Your task to perform on an android device: move a message to another label in the gmail app Image 0: 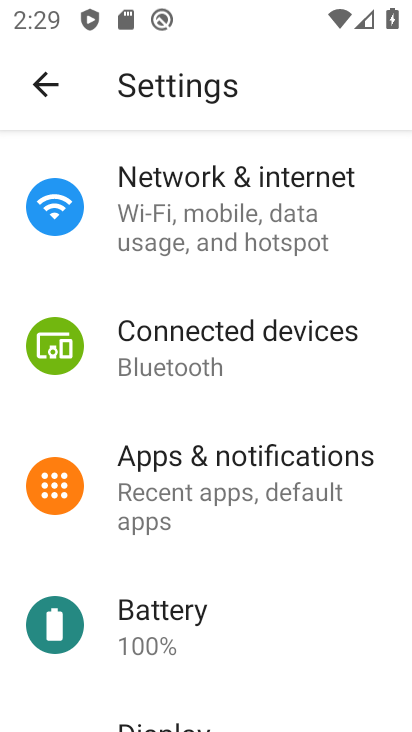
Step 0: press back button
Your task to perform on an android device: move a message to another label in the gmail app Image 1: 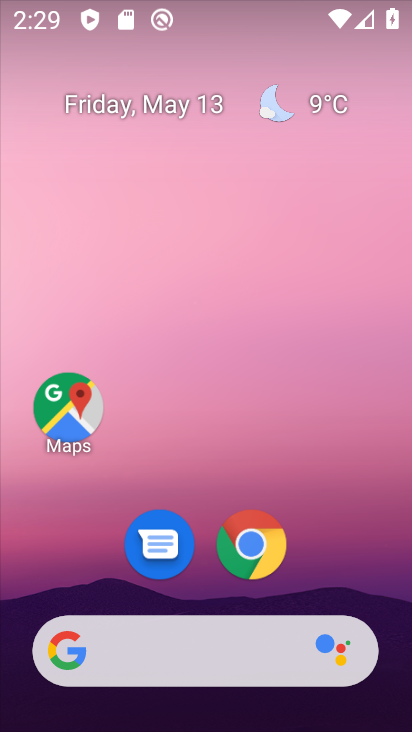
Step 1: drag from (182, 594) to (350, 117)
Your task to perform on an android device: move a message to another label in the gmail app Image 2: 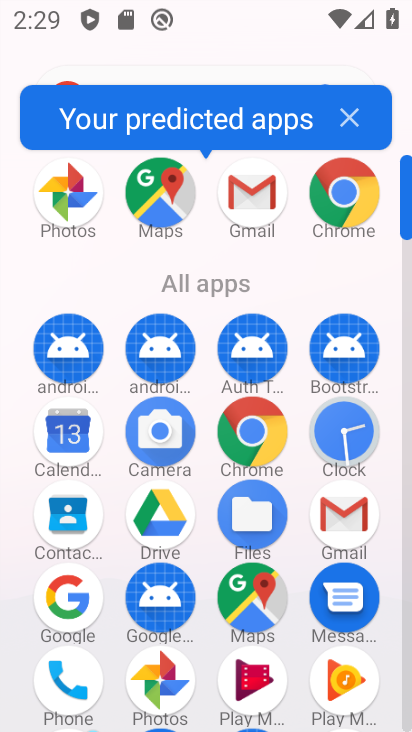
Step 2: drag from (232, 592) to (344, 370)
Your task to perform on an android device: move a message to another label in the gmail app Image 3: 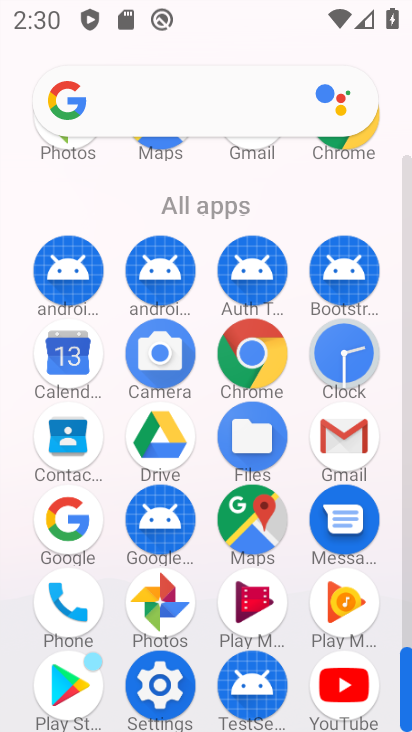
Step 3: click (351, 444)
Your task to perform on an android device: move a message to another label in the gmail app Image 4: 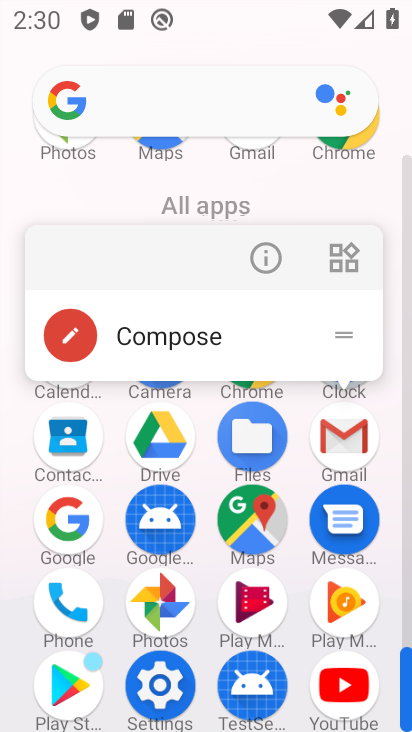
Step 4: click (361, 451)
Your task to perform on an android device: move a message to another label in the gmail app Image 5: 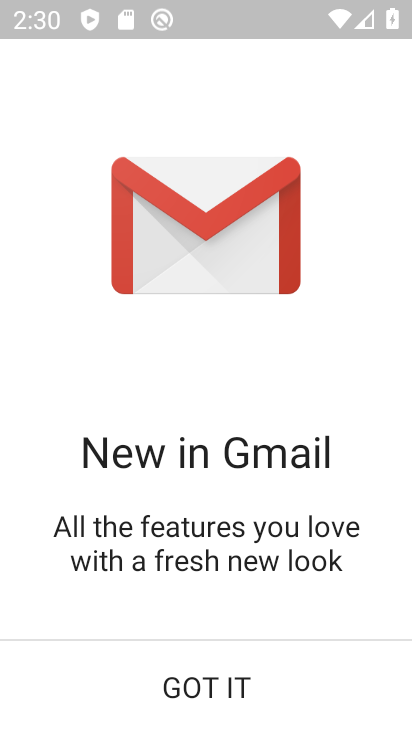
Step 5: click (274, 659)
Your task to perform on an android device: move a message to another label in the gmail app Image 6: 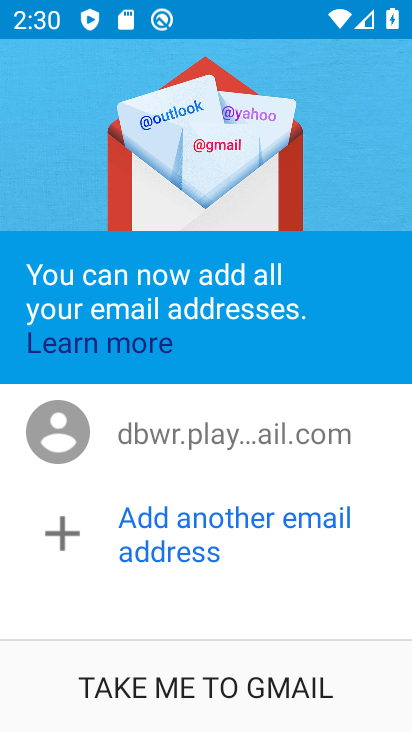
Step 6: click (251, 696)
Your task to perform on an android device: move a message to another label in the gmail app Image 7: 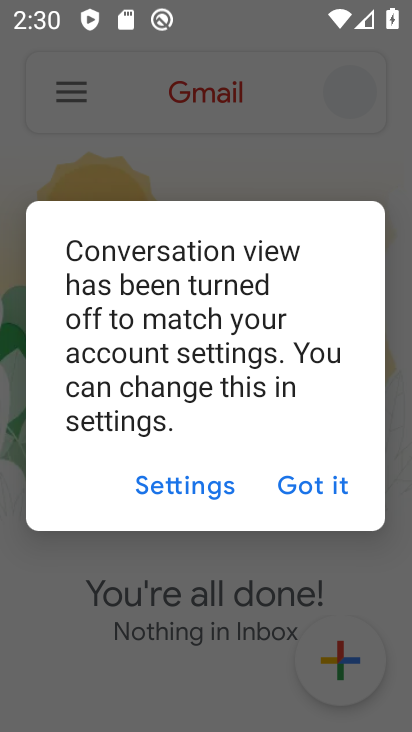
Step 7: click (351, 503)
Your task to perform on an android device: move a message to another label in the gmail app Image 8: 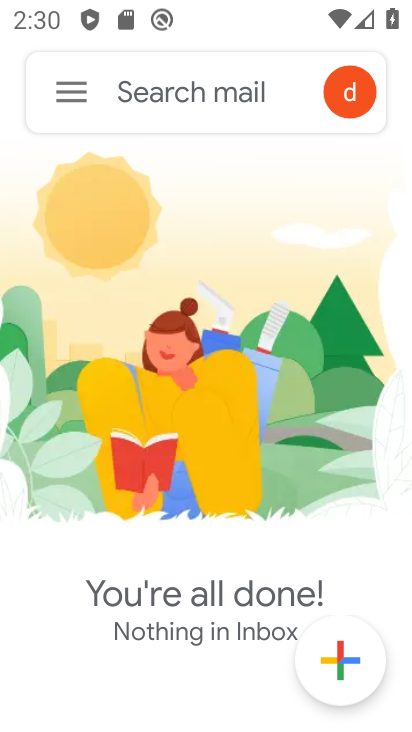
Step 8: click (79, 81)
Your task to perform on an android device: move a message to another label in the gmail app Image 9: 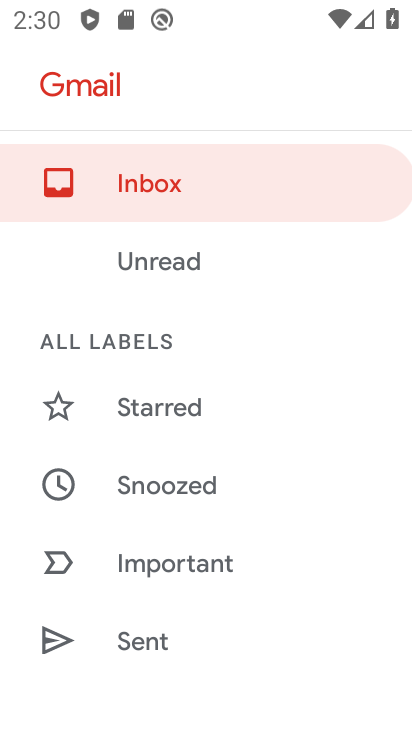
Step 9: drag from (194, 549) to (363, 193)
Your task to perform on an android device: move a message to another label in the gmail app Image 10: 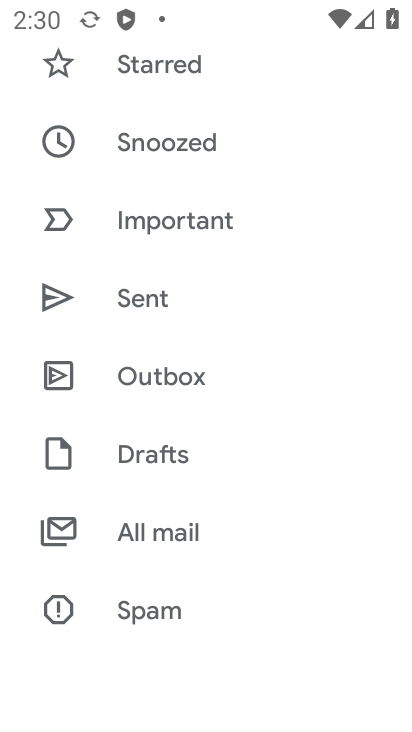
Step 10: drag from (268, 534) to (334, 271)
Your task to perform on an android device: move a message to another label in the gmail app Image 11: 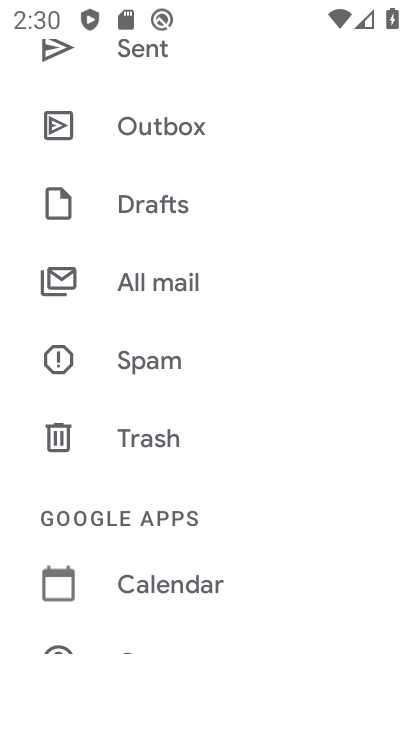
Step 11: drag from (285, 212) to (283, 549)
Your task to perform on an android device: move a message to another label in the gmail app Image 12: 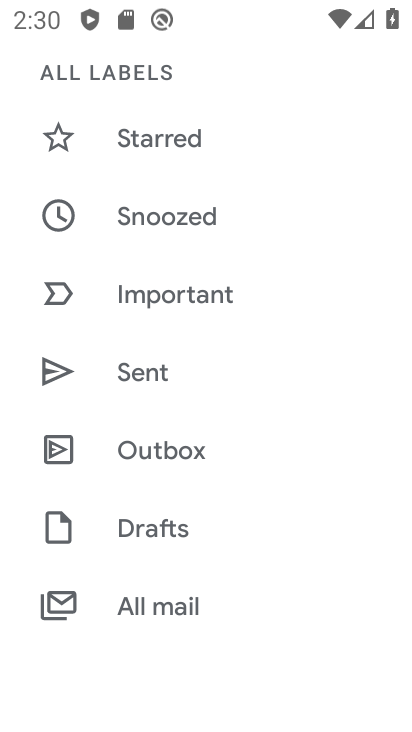
Step 12: click (221, 593)
Your task to perform on an android device: move a message to another label in the gmail app Image 13: 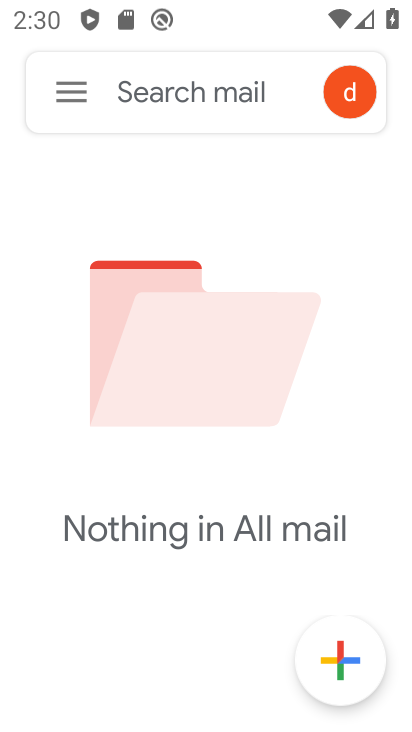
Step 13: task complete